Your task to perform on an android device: What's the weather going to be this weekend? Image 0: 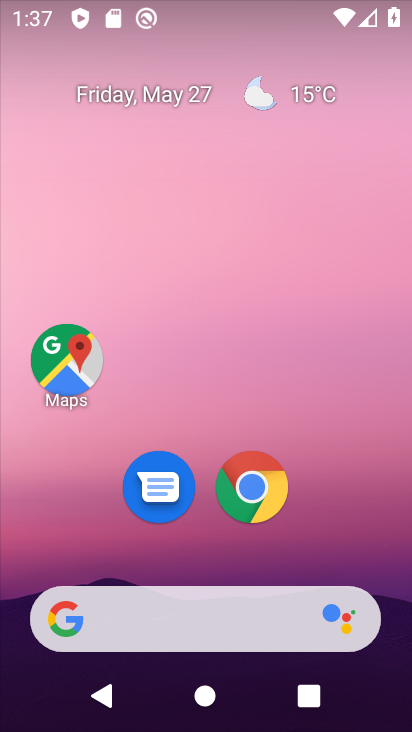
Step 0: drag from (314, 504) to (256, 196)
Your task to perform on an android device: What's the weather going to be this weekend? Image 1: 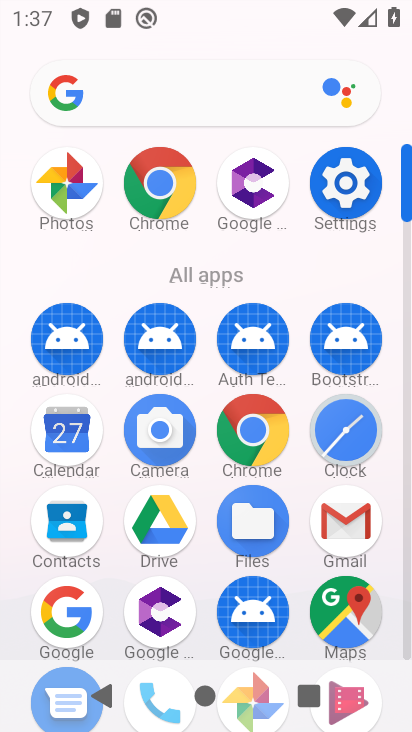
Step 1: click (254, 428)
Your task to perform on an android device: What's the weather going to be this weekend? Image 2: 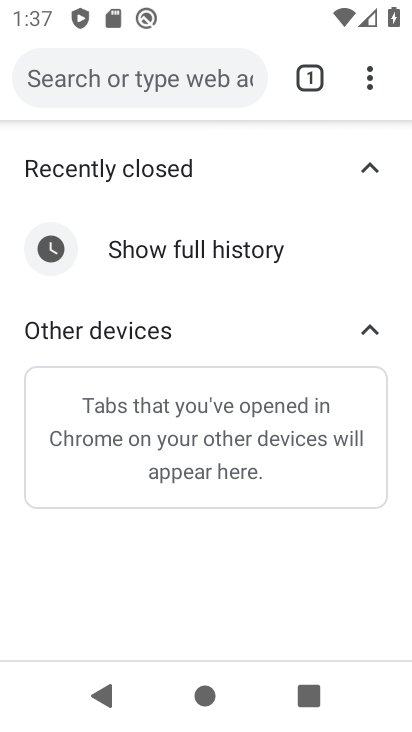
Step 2: click (215, 80)
Your task to perform on an android device: What's the weather going to be this weekend? Image 3: 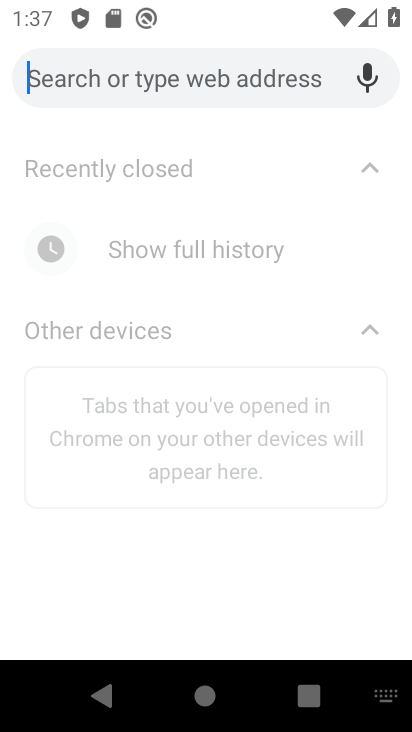
Step 3: type "weather"
Your task to perform on an android device: What's the weather going to be this weekend? Image 4: 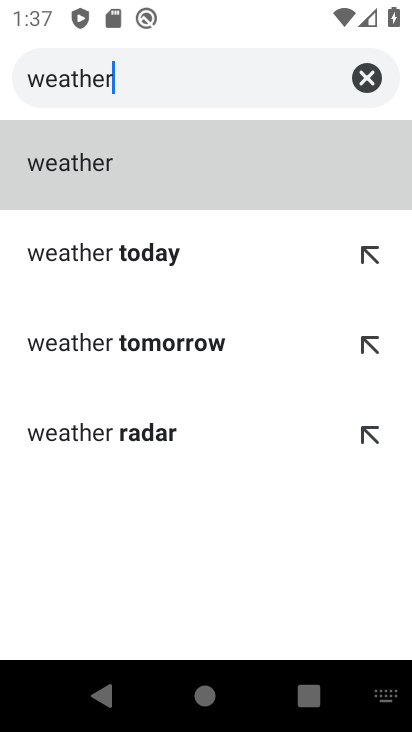
Step 4: click (81, 159)
Your task to perform on an android device: What's the weather going to be this weekend? Image 5: 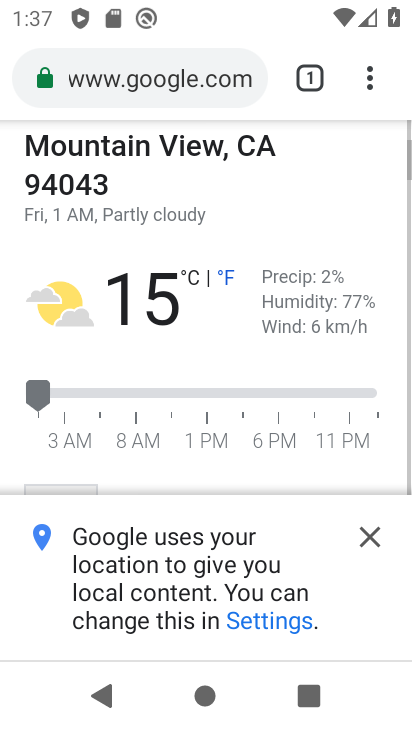
Step 5: drag from (198, 352) to (224, 110)
Your task to perform on an android device: What's the weather going to be this weekend? Image 6: 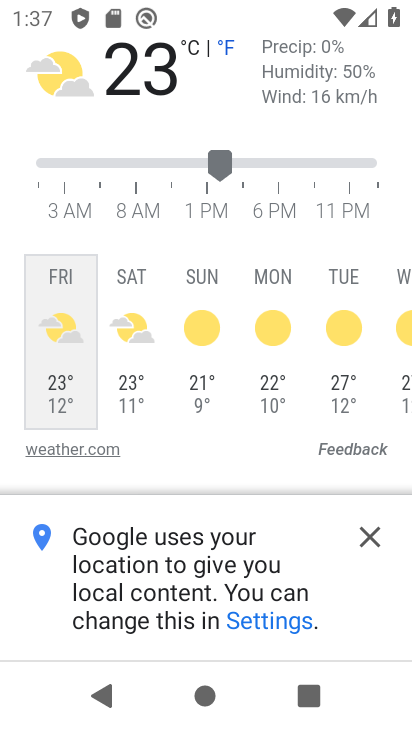
Step 6: click (151, 317)
Your task to perform on an android device: What's the weather going to be this weekend? Image 7: 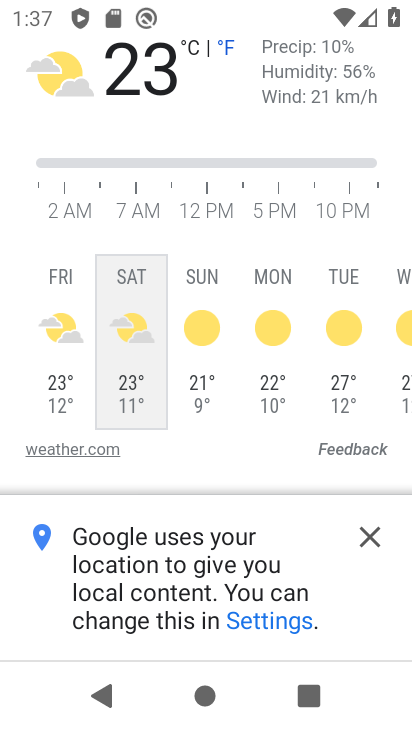
Step 7: task complete